Your task to perform on an android device: allow notifications from all sites in the chrome app Image 0: 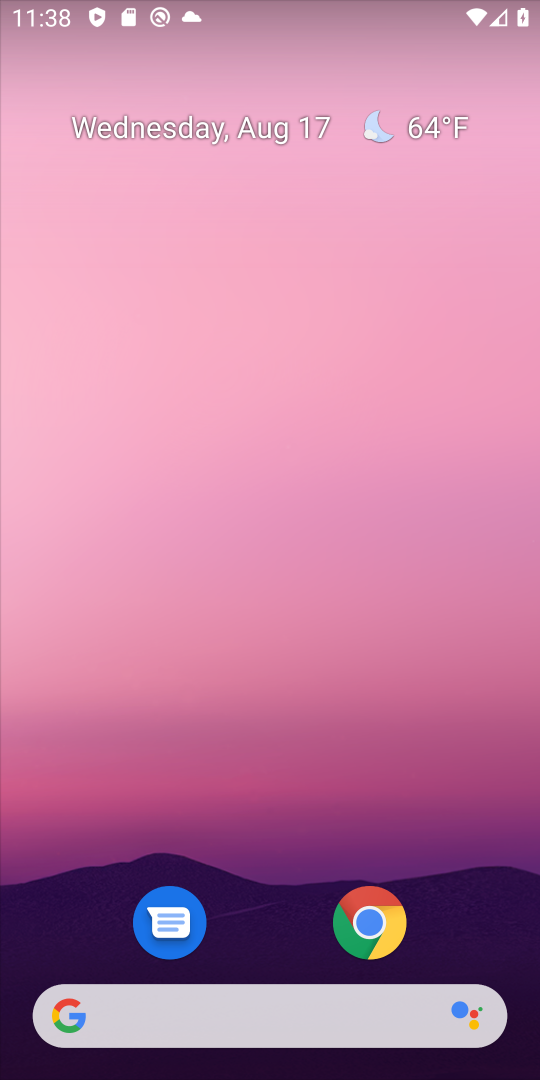
Step 0: click (369, 915)
Your task to perform on an android device: allow notifications from all sites in the chrome app Image 1: 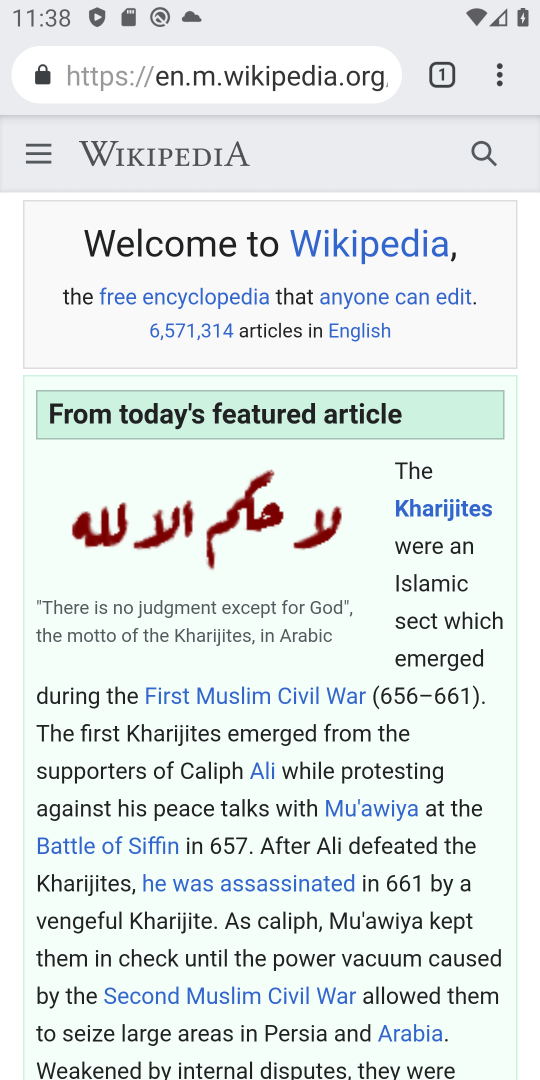
Step 1: click (493, 73)
Your task to perform on an android device: allow notifications from all sites in the chrome app Image 2: 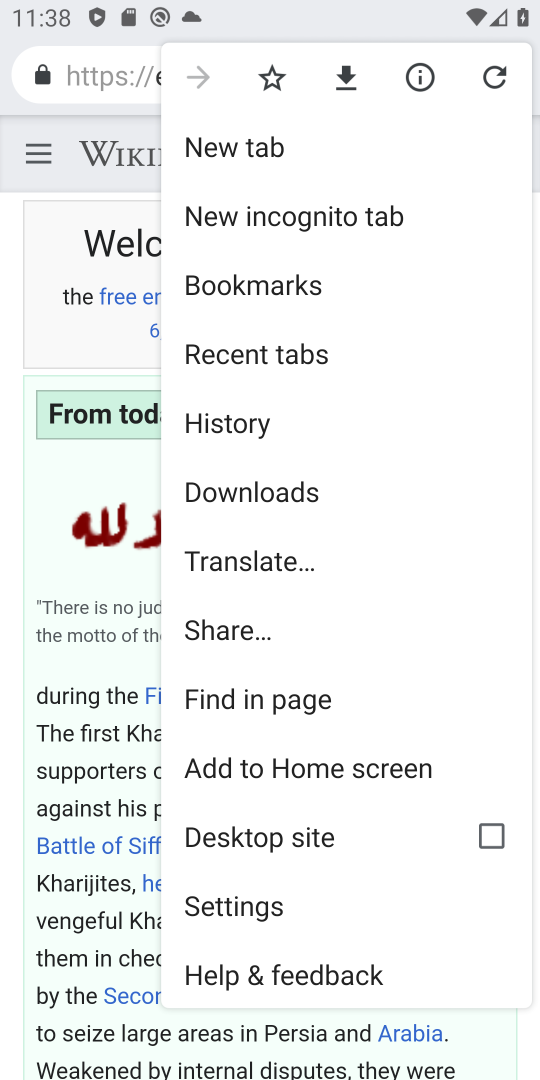
Step 2: click (233, 907)
Your task to perform on an android device: allow notifications from all sites in the chrome app Image 3: 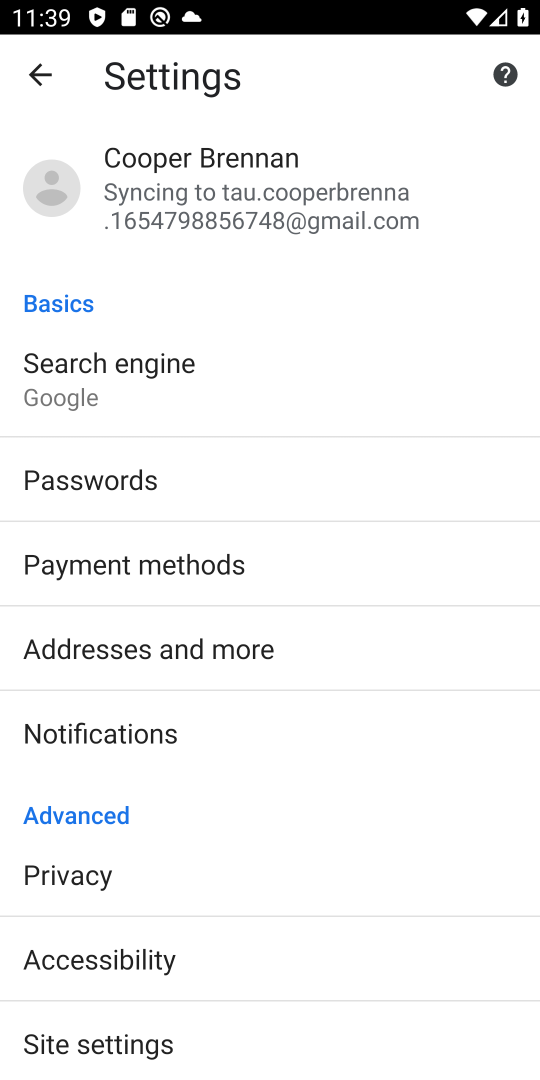
Step 3: click (130, 729)
Your task to perform on an android device: allow notifications from all sites in the chrome app Image 4: 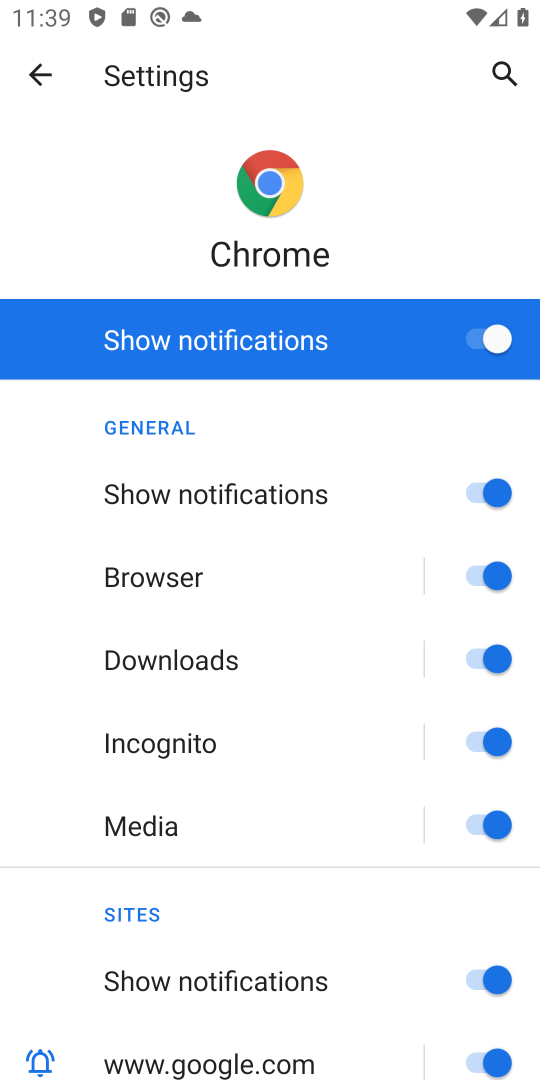
Step 4: task complete